Your task to perform on an android device: toggle sleep mode Image 0: 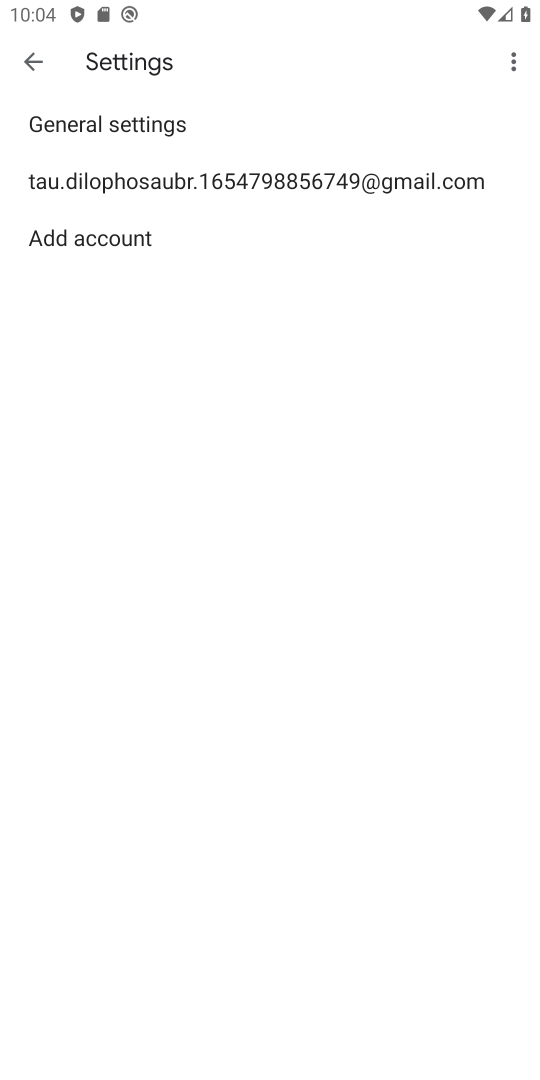
Step 0: press home button
Your task to perform on an android device: toggle sleep mode Image 1: 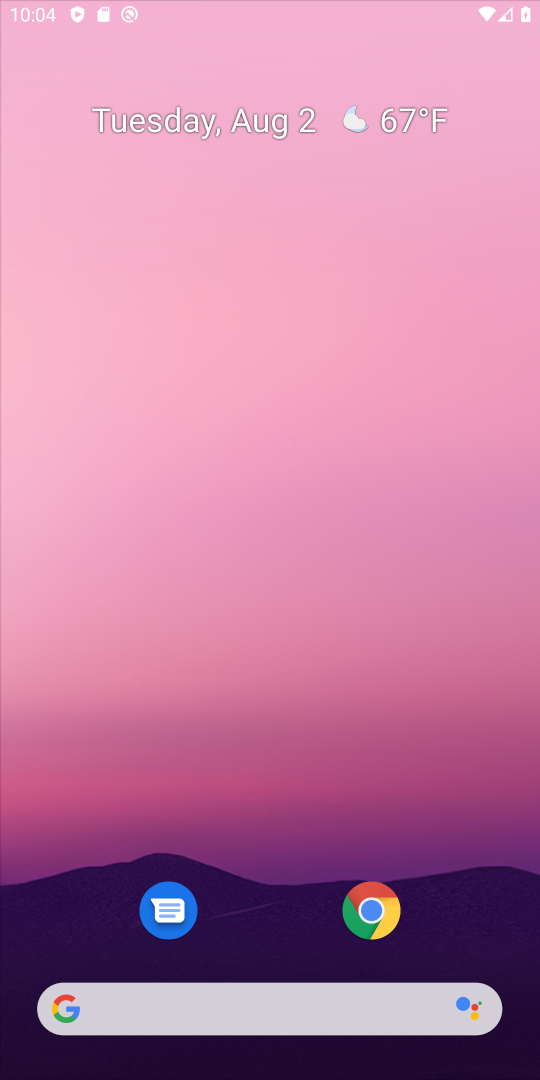
Step 1: drag from (301, 956) to (279, 345)
Your task to perform on an android device: toggle sleep mode Image 2: 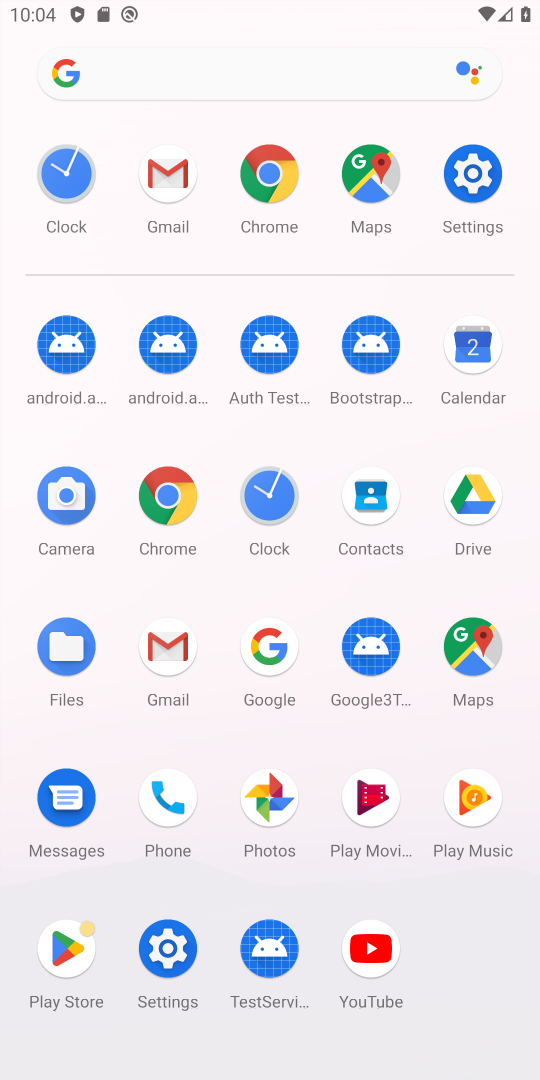
Step 2: click (462, 174)
Your task to perform on an android device: toggle sleep mode Image 3: 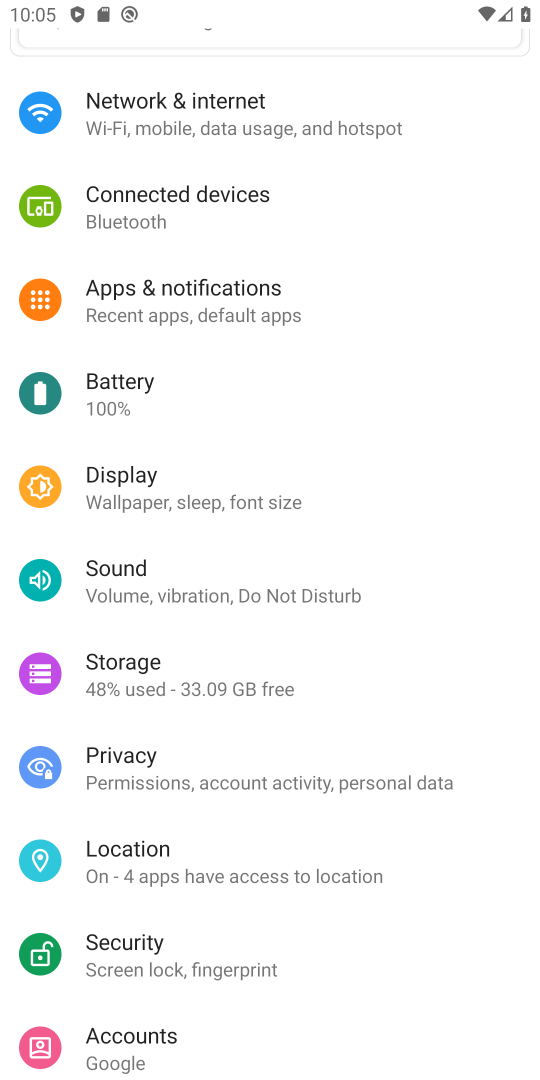
Step 3: task complete